Your task to perform on an android device: Open network settings Image 0: 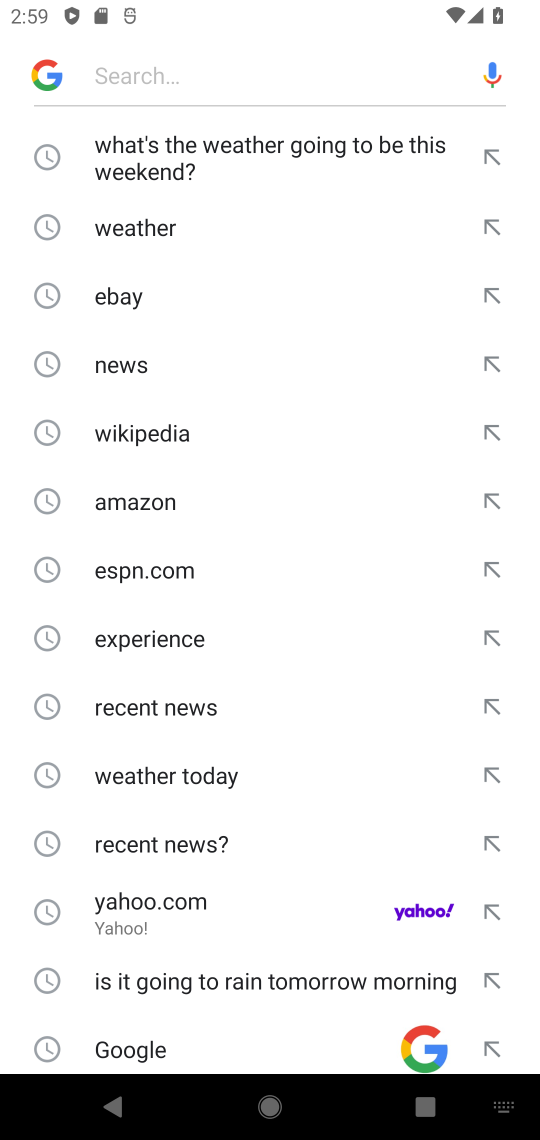
Step 0: press home button
Your task to perform on an android device: Open network settings Image 1: 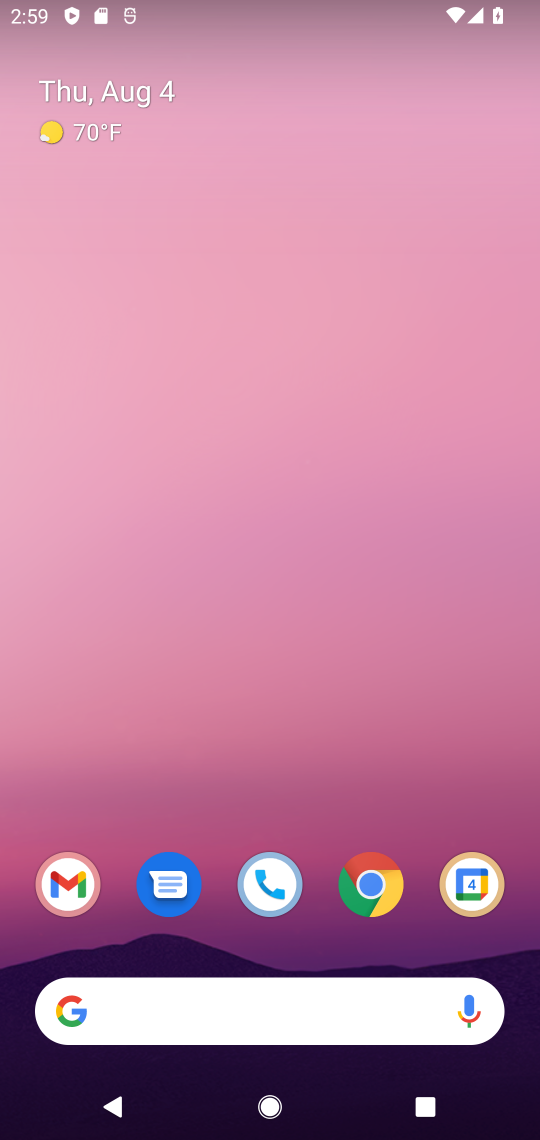
Step 1: drag from (210, 923) to (245, 167)
Your task to perform on an android device: Open network settings Image 2: 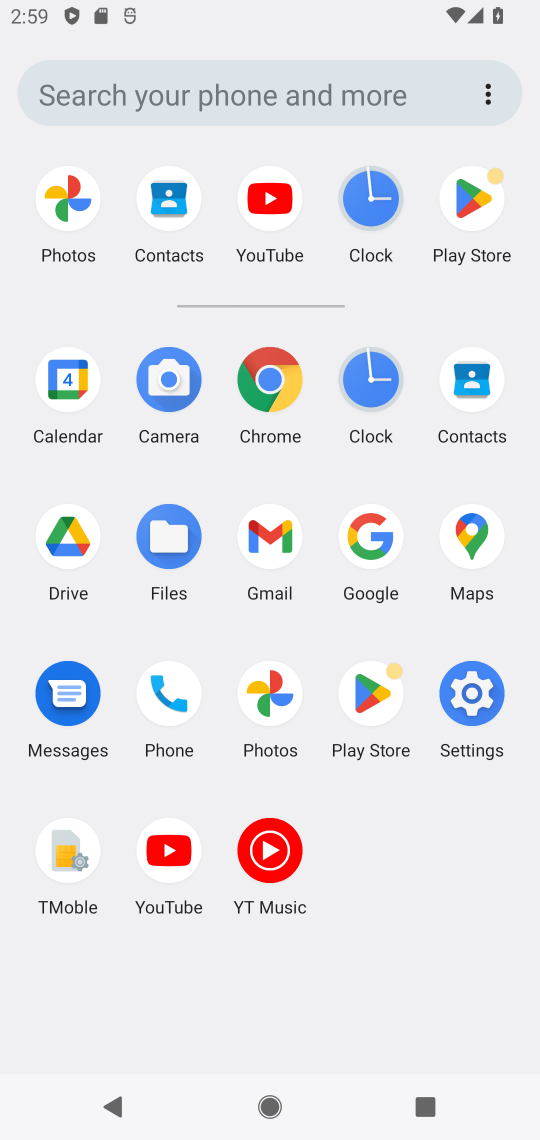
Step 2: click (487, 693)
Your task to perform on an android device: Open network settings Image 3: 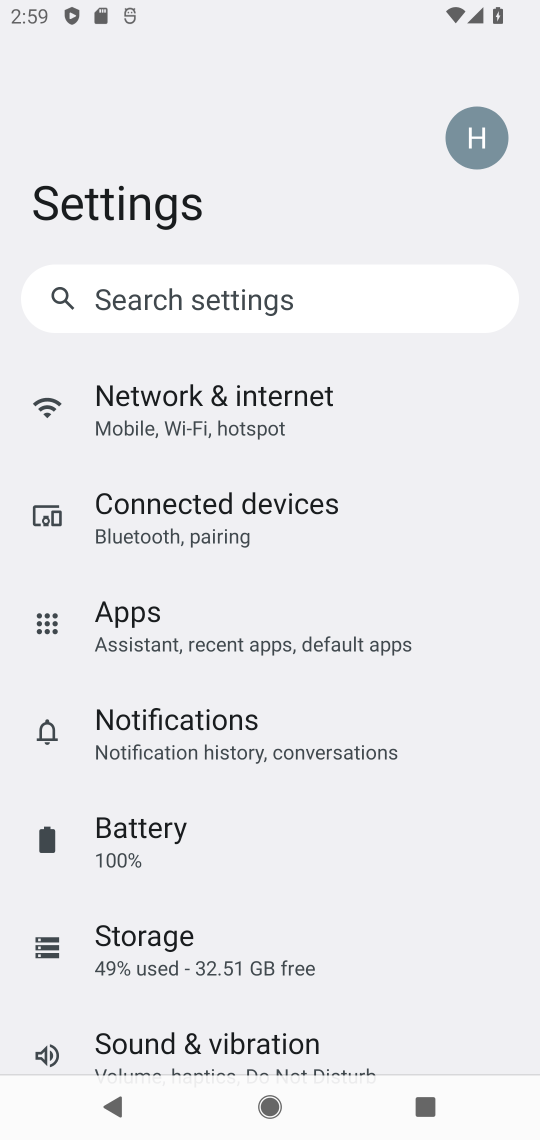
Step 3: click (209, 372)
Your task to perform on an android device: Open network settings Image 4: 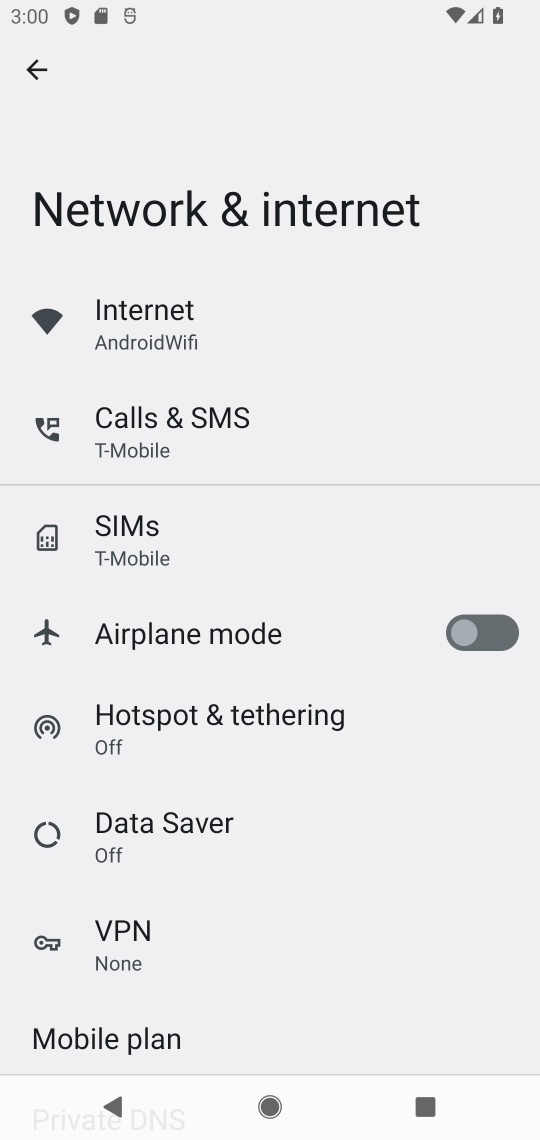
Step 4: task complete